Your task to perform on an android device: Go to Android settings Image 0: 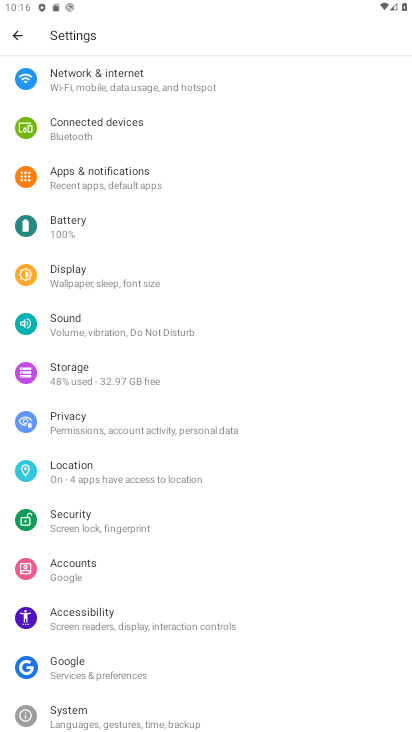
Step 0: drag from (249, 626) to (202, 250)
Your task to perform on an android device: Go to Android settings Image 1: 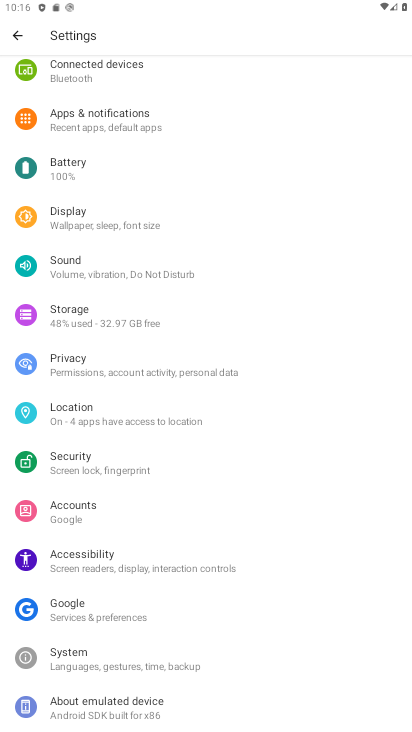
Step 1: task complete